Your task to perform on an android device: Open the calendar and show me this week's events? Image 0: 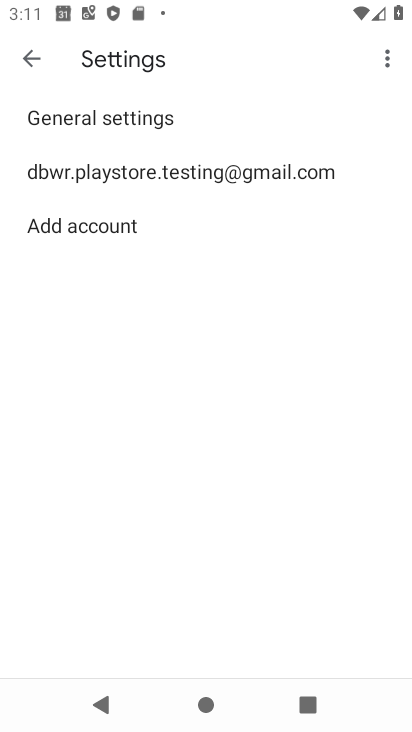
Step 0: drag from (285, 4) to (255, 448)
Your task to perform on an android device: Open the calendar and show me this week's events? Image 1: 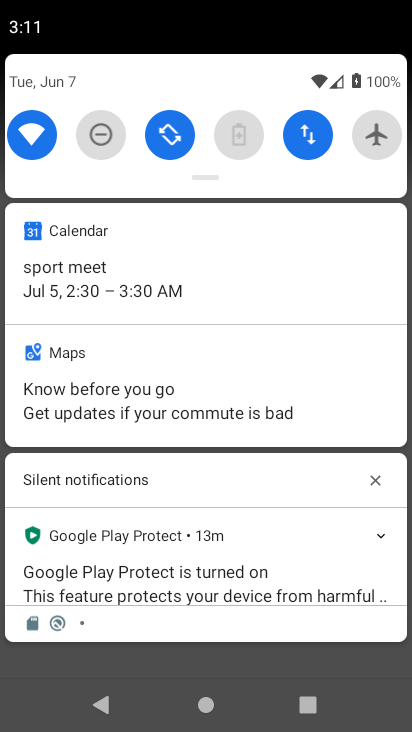
Step 1: click (115, 132)
Your task to perform on an android device: Open the calendar and show me this week's events? Image 2: 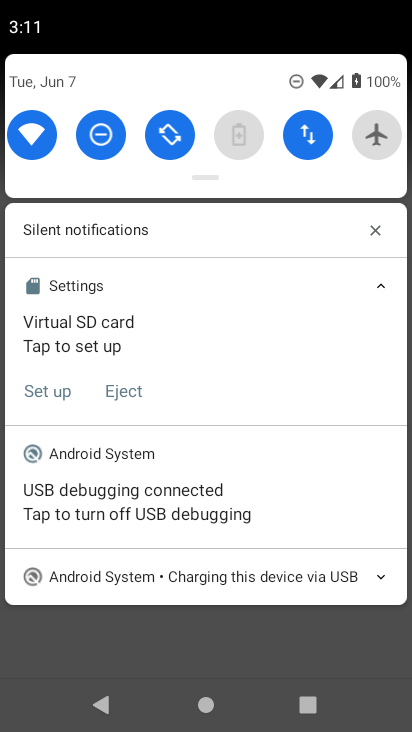
Step 2: task complete